Your task to perform on an android device: create a new album in the google photos Image 0: 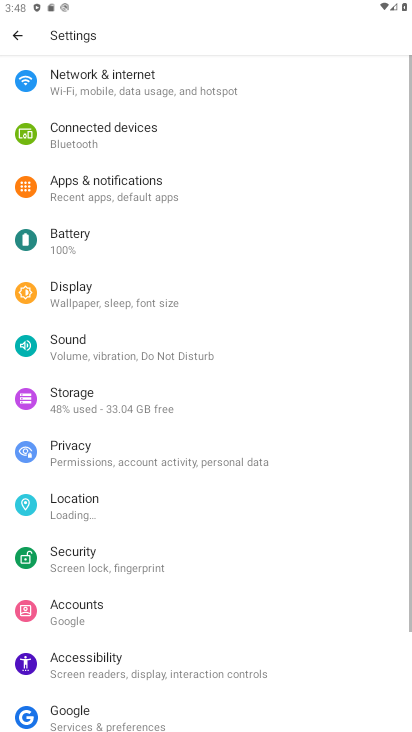
Step 0: drag from (266, 592) to (265, 271)
Your task to perform on an android device: create a new album in the google photos Image 1: 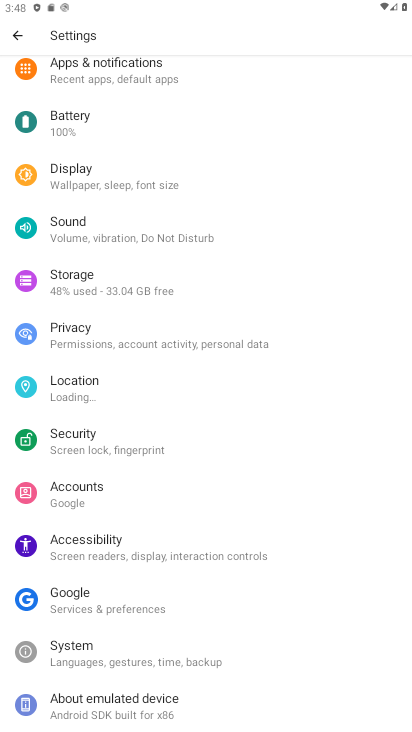
Step 1: press back button
Your task to perform on an android device: create a new album in the google photos Image 2: 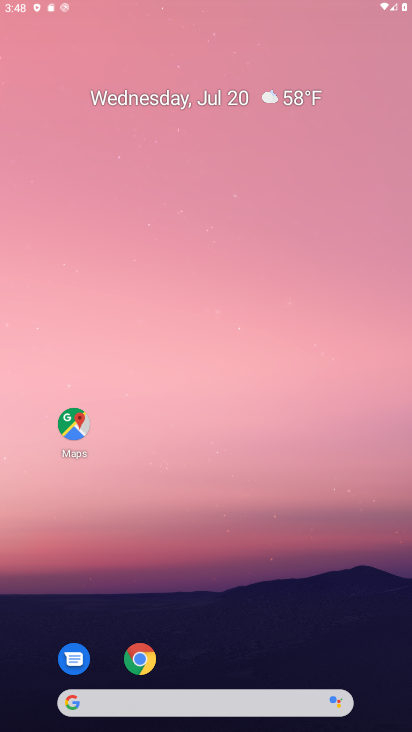
Step 2: drag from (321, 382) to (323, 203)
Your task to perform on an android device: create a new album in the google photos Image 3: 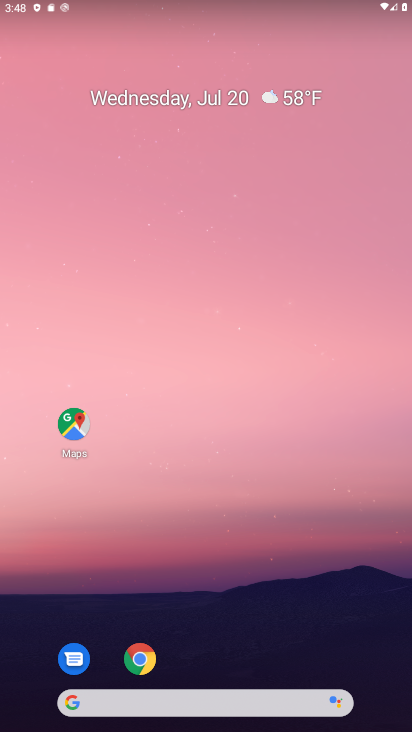
Step 3: drag from (202, 461) to (192, 190)
Your task to perform on an android device: create a new album in the google photos Image 4: 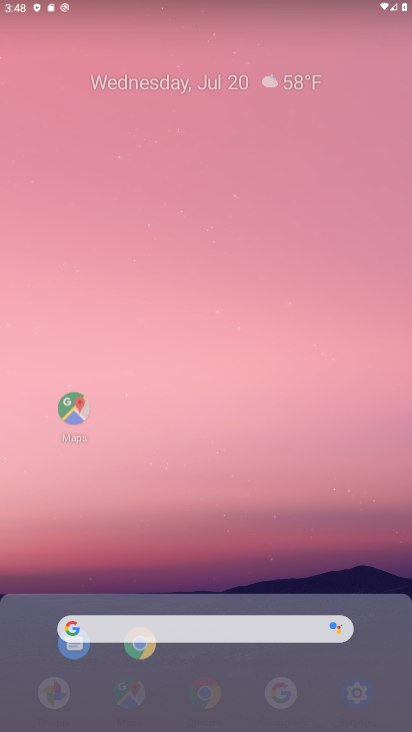
Step 4: drag from (253, 108) to (253, 57)
Your task to perform on an android device: create a new album in the google photos Image 5: 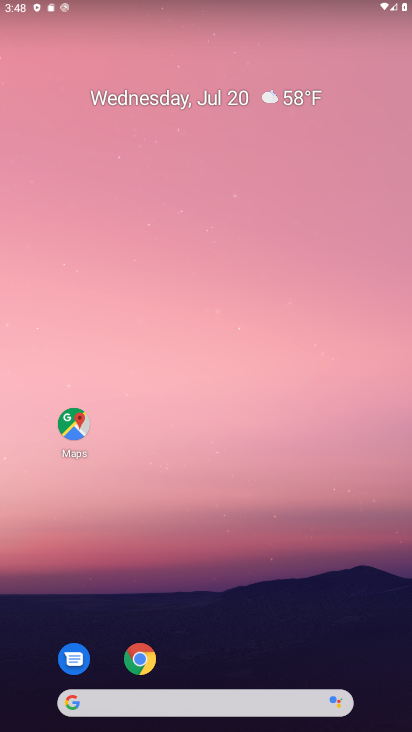
Step 5: drag from (223, 481) to (193, 83)
Your task to perform on an android device: create a new album in the google photos Image 6: 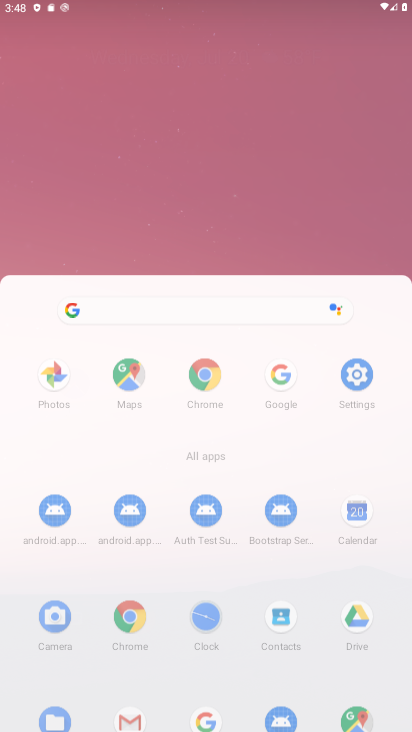
Step 6: drag from (147, 462) to (172, 93)
Your task to perform on an android device: create a new album in the google photos Image 7: 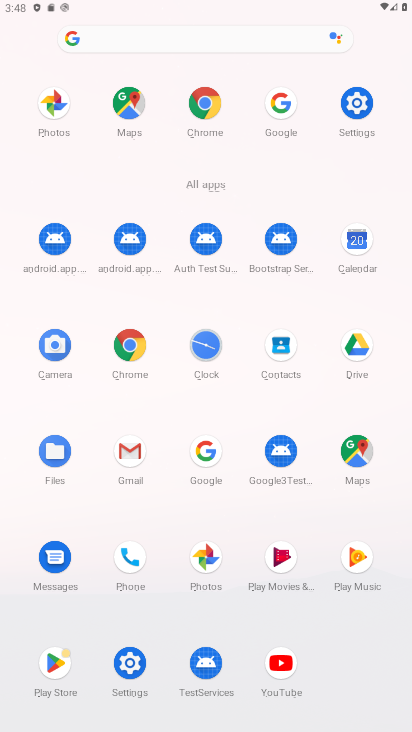
Step 7: click (358, 454)
Your task to perform on an android device: create a new album in the google photos Image 8: 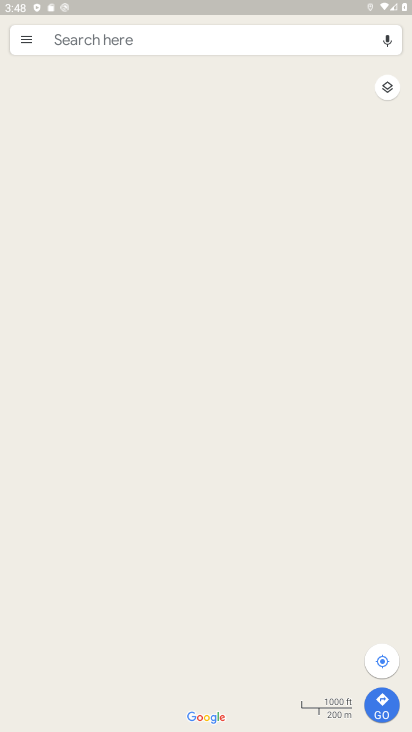
Step 8: press back button
Your task to perform on an android device: create a new album in the google photos Image 9: 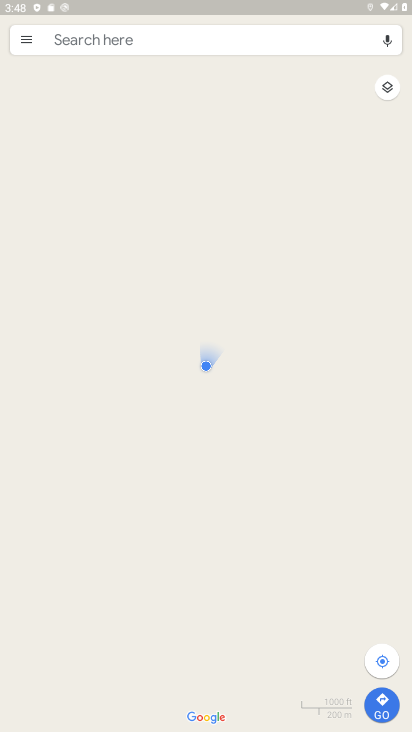
Step 9: press back button
Your task to perform on an android device: create a new album in the google photos Image 10: 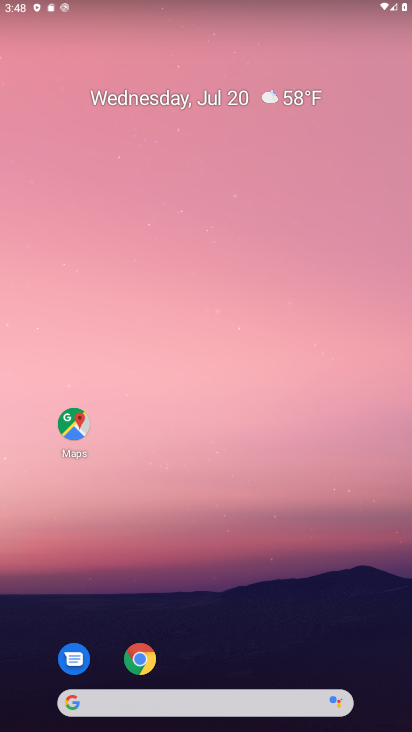
Step 10: drag from (283, 568) to (228, 146)
Your task to perform on an android device: create a new album in the google photos Image 11: 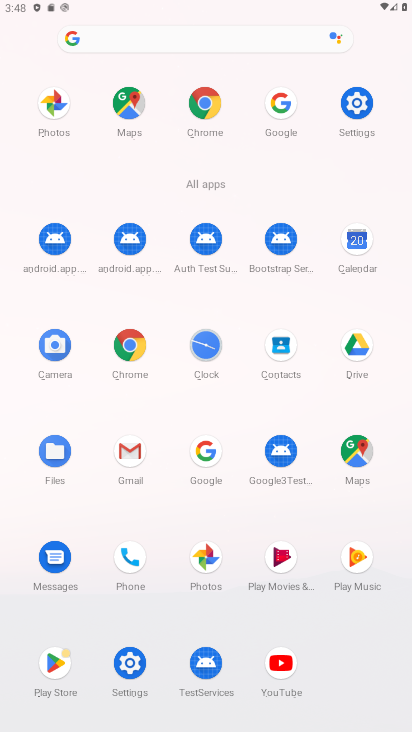
Step 11: click (204, 543)
Your task to perform on an android device: create a new album in the google photos Image 12: 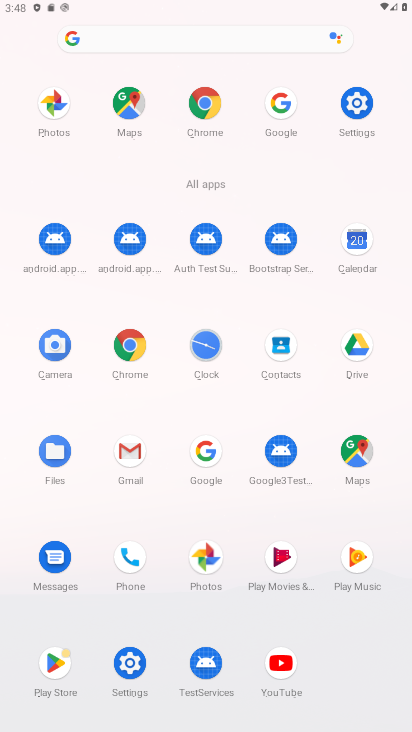
Step 12: click (208, 553)
Your task to perform on an android device: create a new album in the google photos Image 13: 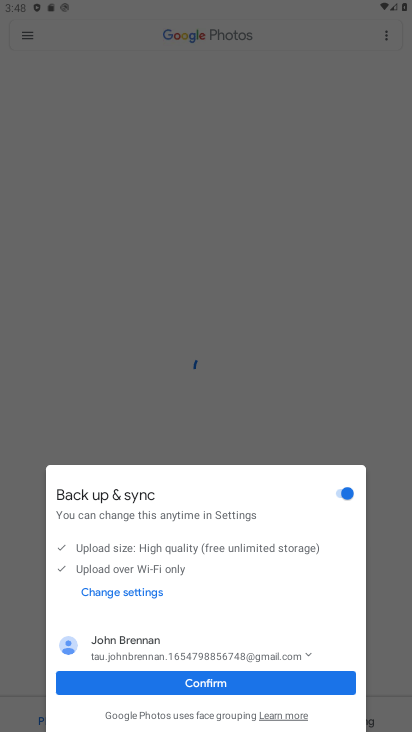
Step 13: click (215, 672)
Your task to perform on an android device: create a new album in the google photos Image 14: 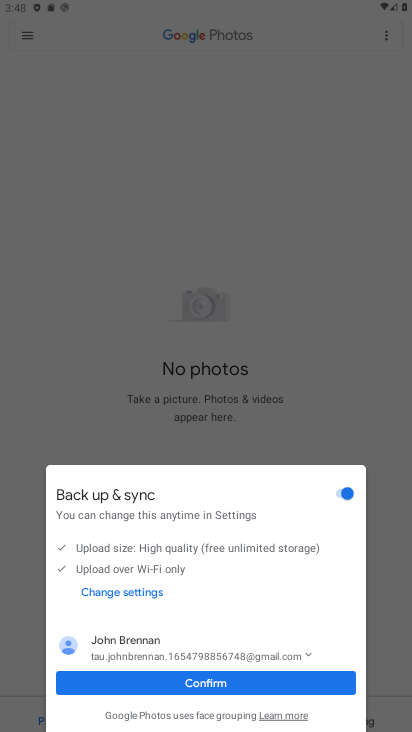
Step 14: click (235, 686)
Your task to perform on an android device: create a new album in the google photos Image 15: 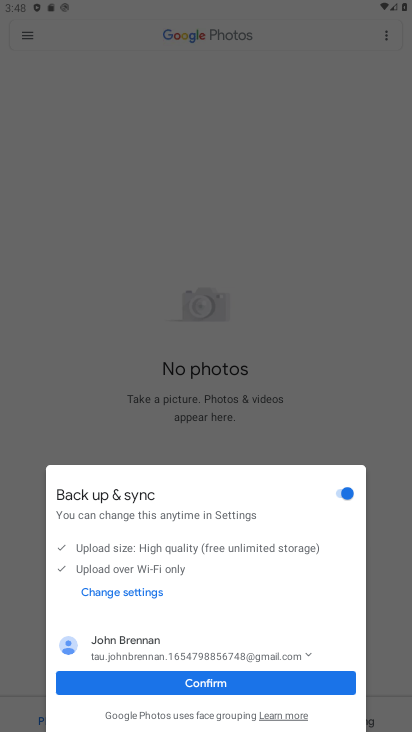
Step 15: click (250, 702)
Your task to perform on an android device: create a new album in the google photos Image 16: 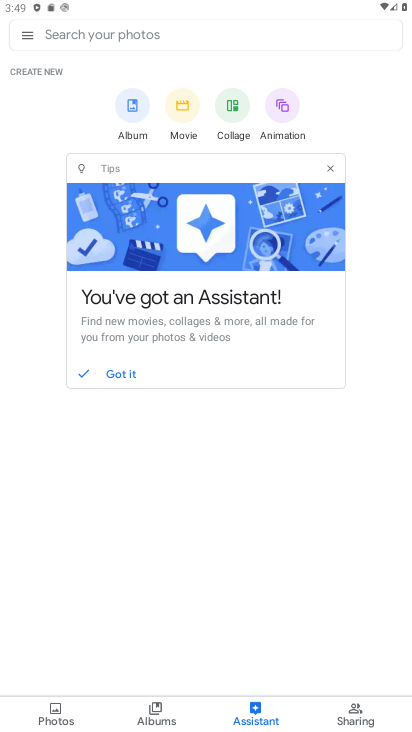
Step 16: click (136, 124)
Your task to perform on an android device: create a new album in the google photos Image 17: 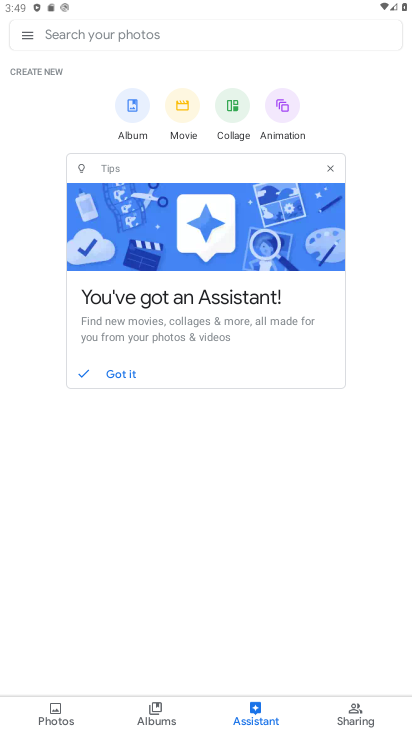
Step 17: click (131, 93)
Your task to perform on an android device: create a new album in the google photos Image 18: 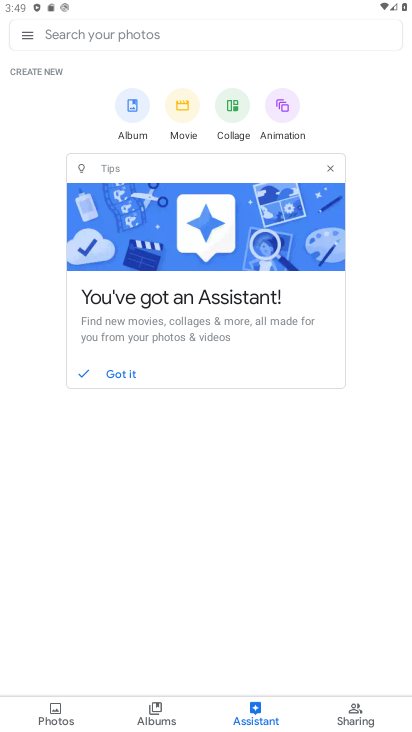
Step 18: click (127, 97)
Your task to perform on an android device: create a new album in the google photos Image 19: 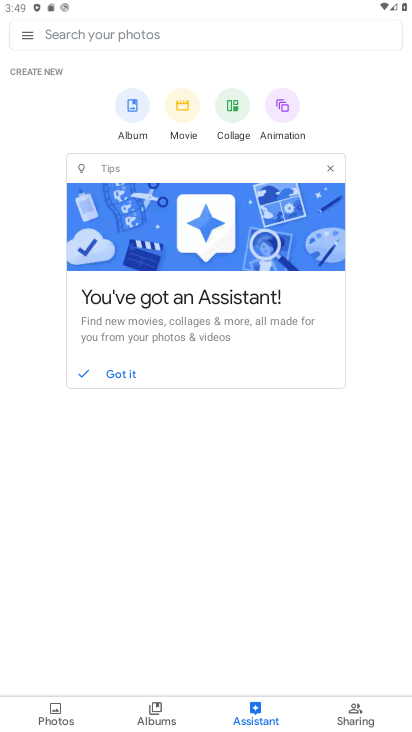
Step 19: click (127, 97)
Your task to perform on an android device: create a new album in the google photos Image 20: 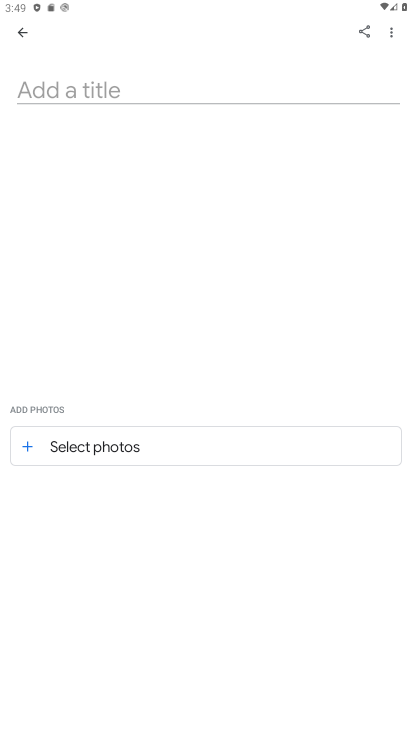
Step 20: click (37, 96)
Your task to perform on an android device: create a new album in the google photos Image 21: 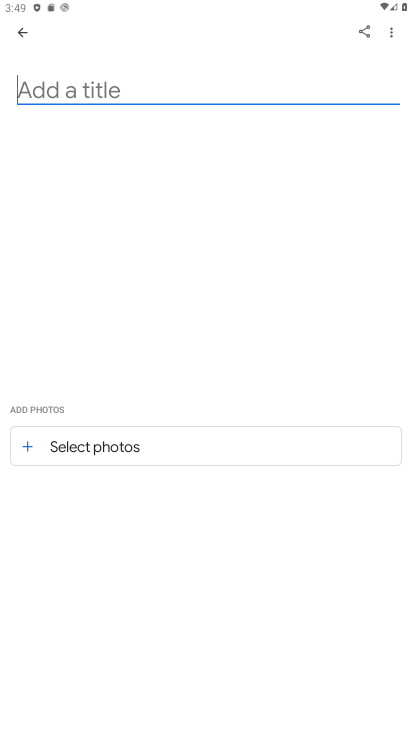
Step 21: click (41, 92)
Your task to perform on an android device: create a new album in the google photos Image 22: 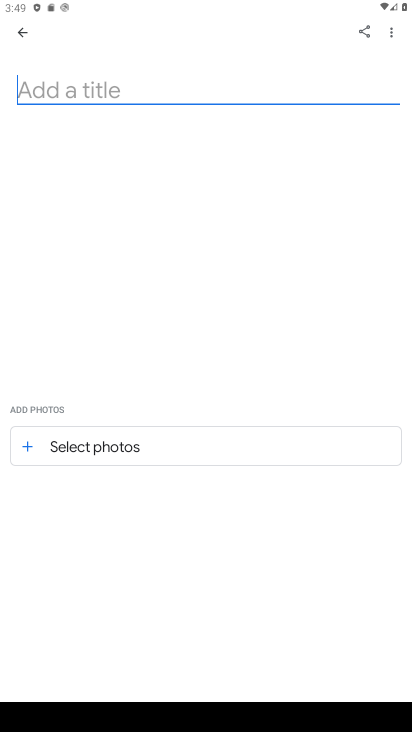
Step 22: type "monu"
Your task to perform on an android device: create a new album in the google photos Image 23: 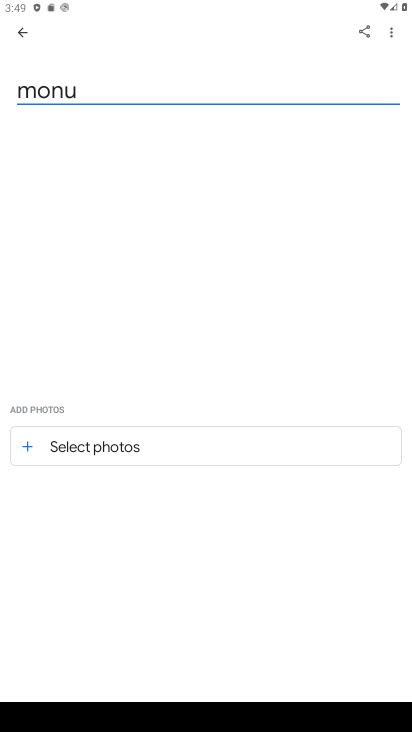
Step 23: click (83, 442)
Your task to perform on an android device: create a new album in the google photos Image 24: 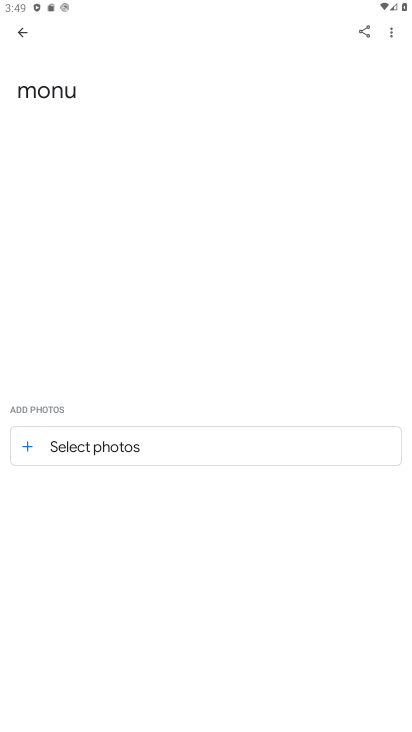
Step 24: click (83, 441)
Your task to perform on an android device: create a new album in the google photos Image 25: 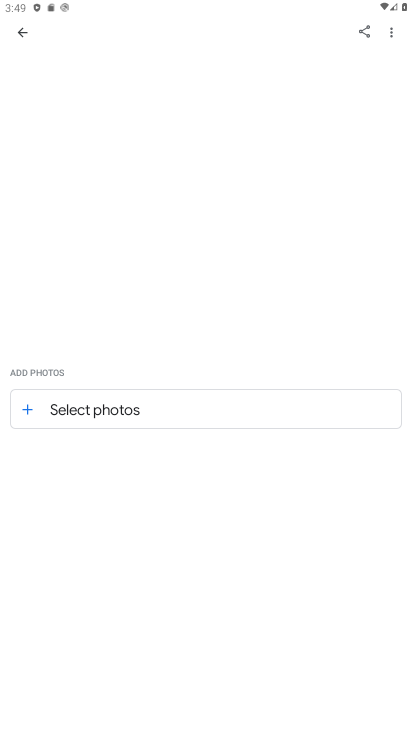
Step 25: click (83, 441)
Your task to perform on an android device: create a new album in the google photos Image 26: 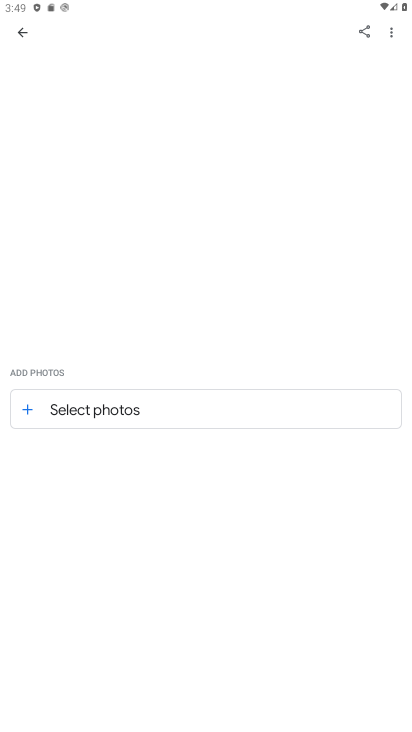
Step 26: click (67, 410)
Your task to perform on an android device: create a new album in the google photos Image 27: 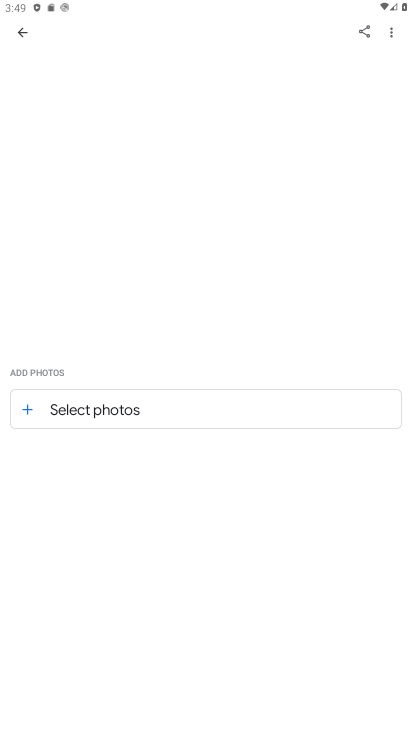
Step 27: click (67, 407)
Your task to perform on an android device: create a new album in the google photos Image 28: 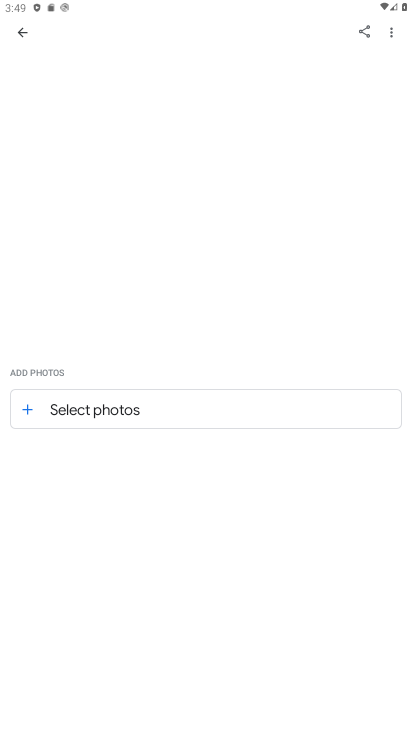
Step 28: click (61, 398)
Your task to perform on an android device: create a new album in the google photos Image 29: 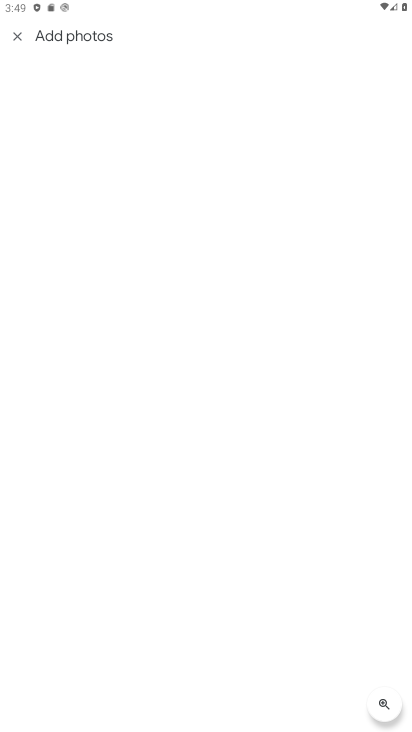
Step 29: task complete